Your task to perform on an android device: toggle airplane mode Image 0: 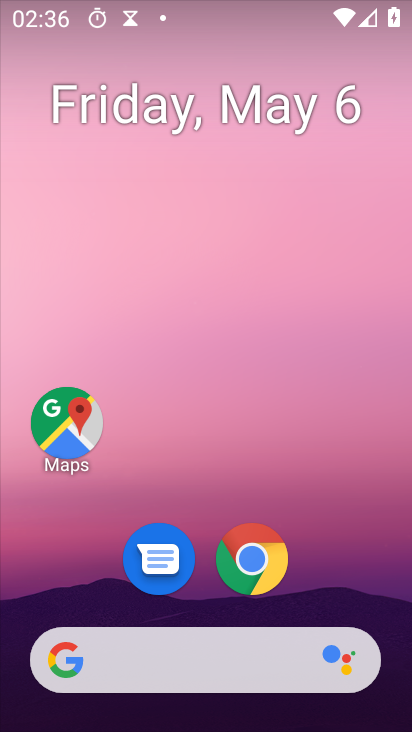
Step 0: click (343, 13)
Your task to perform on an android device: toggle airplane mode Image 1: 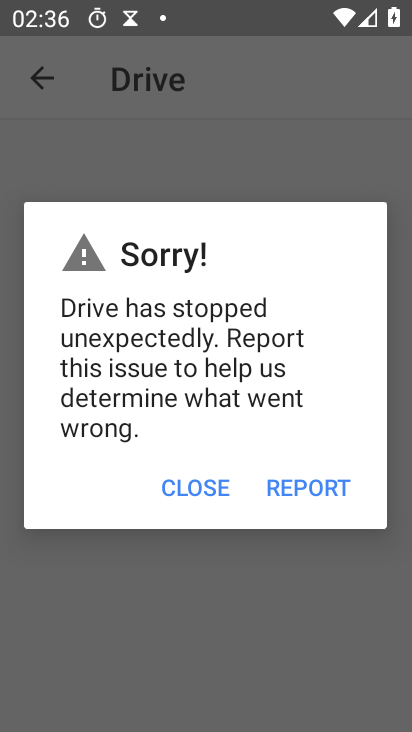
Step 1: press home button
Your task to perform on an android device: toggle airplane mode Image 2: 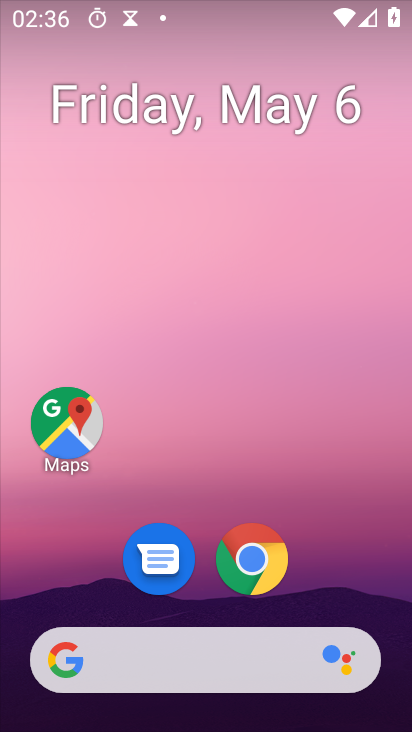
Step 2: drag from (334, 611) to (331, 17)
Your task to perform on an android device: toggle airplane mode Image 3: 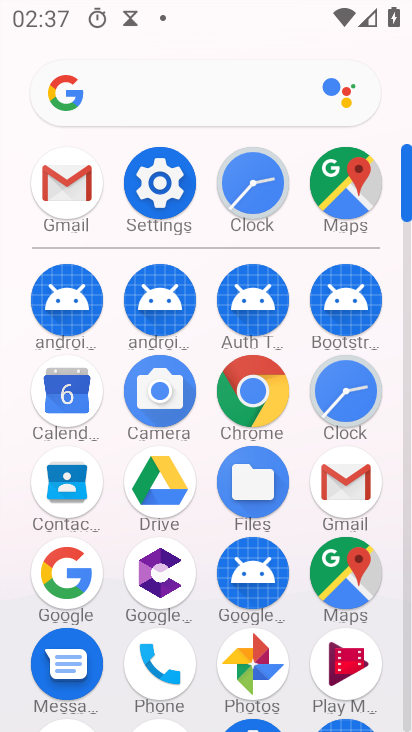
Step 3: click (166, 199)
Your task to perform on an android device: toggle airplane mode Image 4: 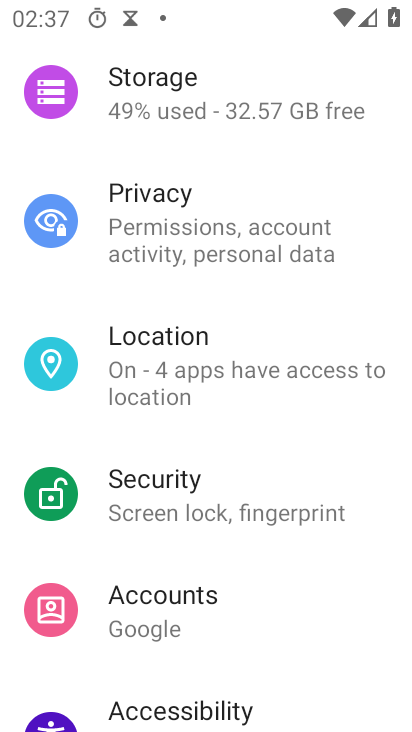
Step 4: drag from (174, 139) to (177, 640)
Your task to perform on an android device: toggle airplane mode Image 5: 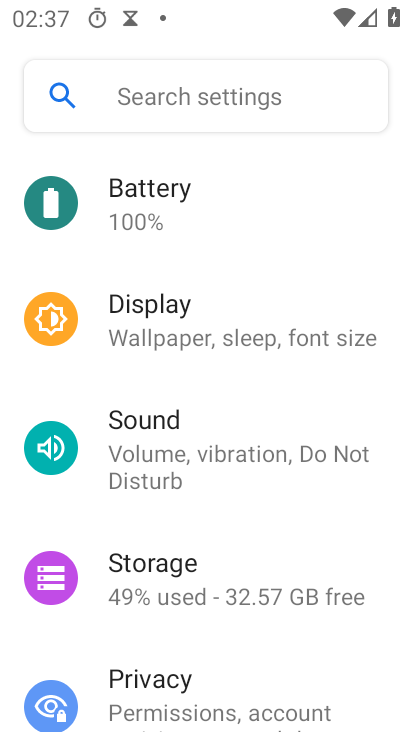
Step 5: drag from (280, 392) to (224, 729)
Your task to perform on an android device: toggle airplane mode Image 6: 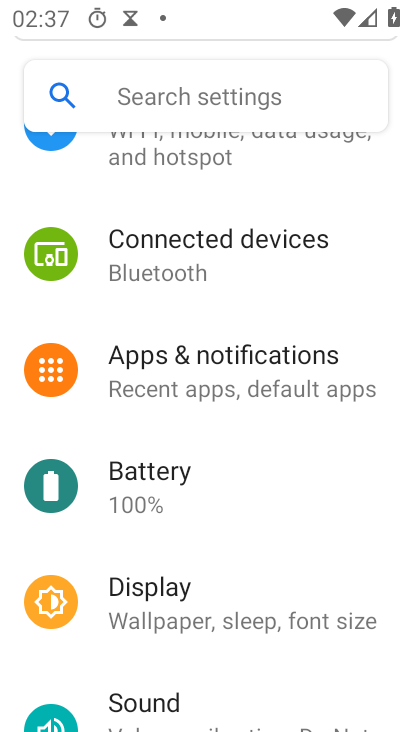
Step 6: drag from (244, 171) to (175, 718)
Your task to perform on an android device: toggle airplane mode Image 7: 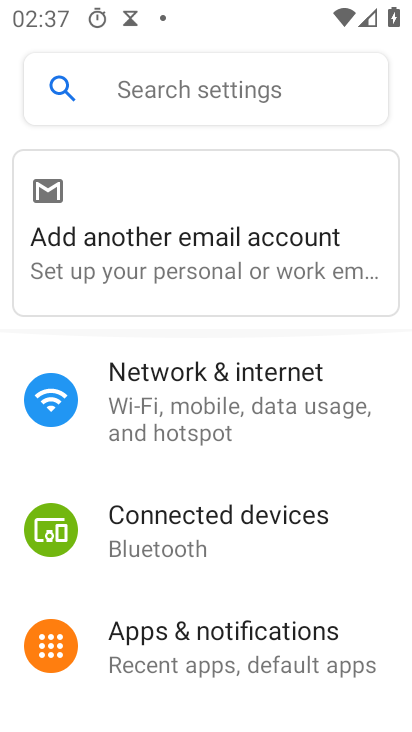
Step 7: click (207, 404)
Your task to perform on an android device: toggle airplane mode Image 8: 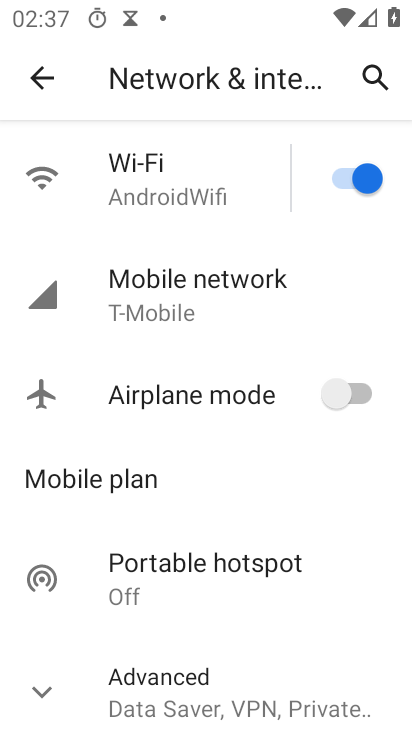
Step 8: click (357, 394)
Your task to perform on an android device: toggle airplane mode Image 9: 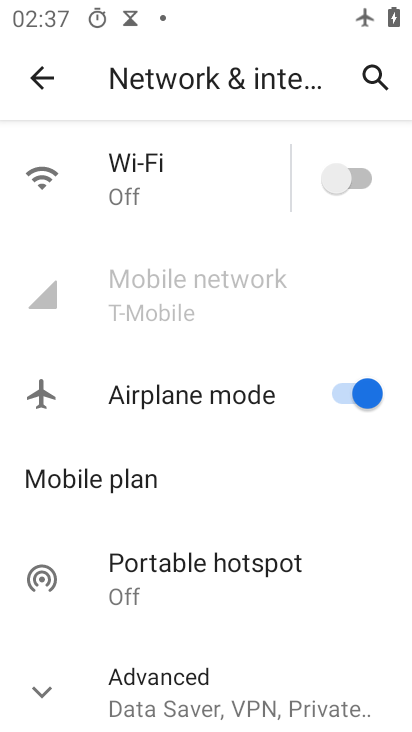
Step 9: task complete